Your task to perform on an android device: Open the web browser Image 0: 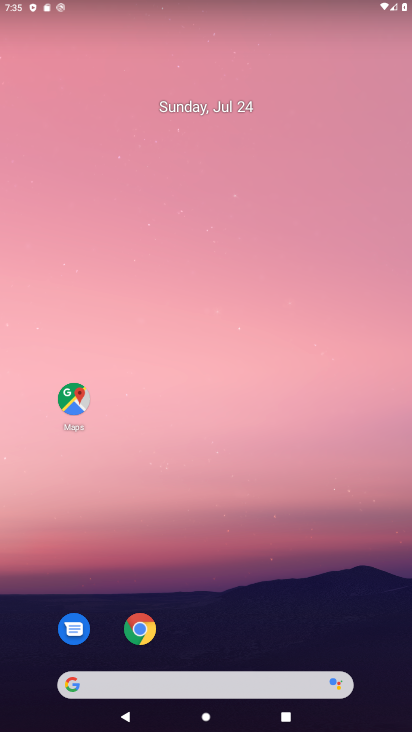
Step 0: drag from (277, 667) to (326, 14)
Your task to perform on an android device: Open the web browser Image 1: 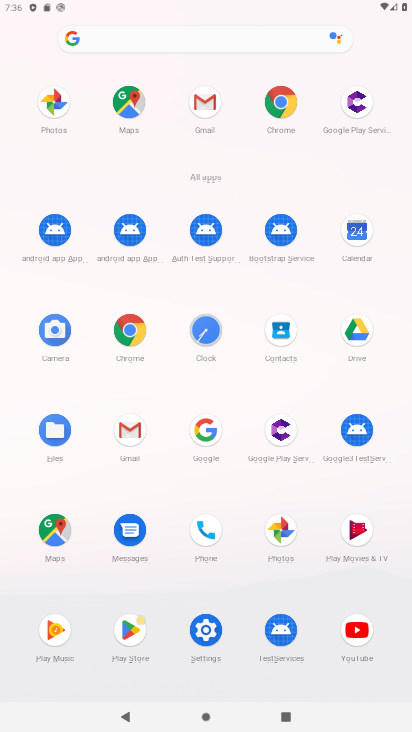
Step 1: click (134, 337)
Your task to perform on an android device: Open the web browser Image 2: 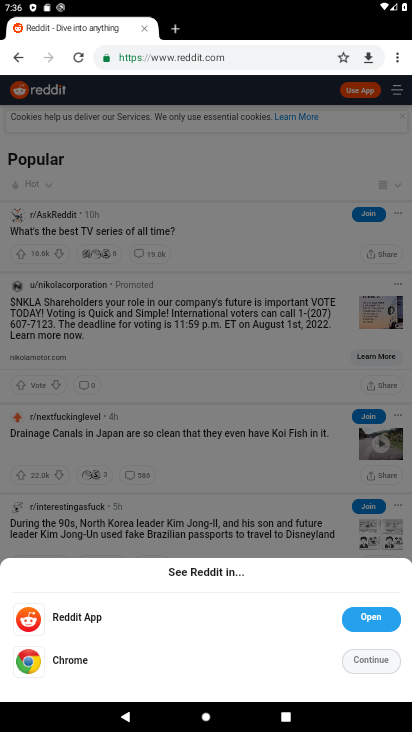
Step 2: task complete